Your task to perform on an android device: Go to display settings Image 0: 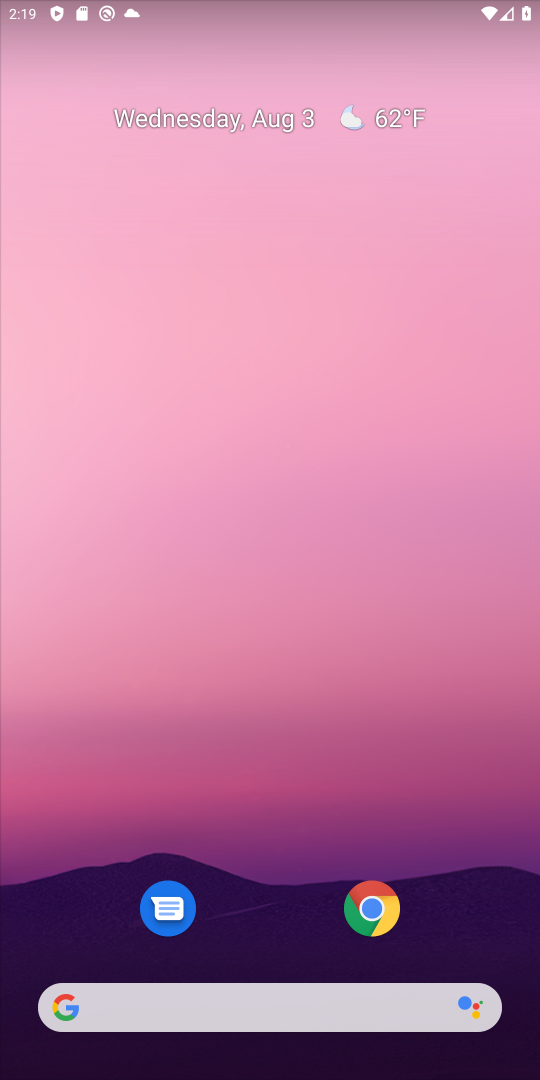
Step 0: drag from (283, 1037) to (325, 104)
Your task to perform on an android device: Go to display settings Image 1: 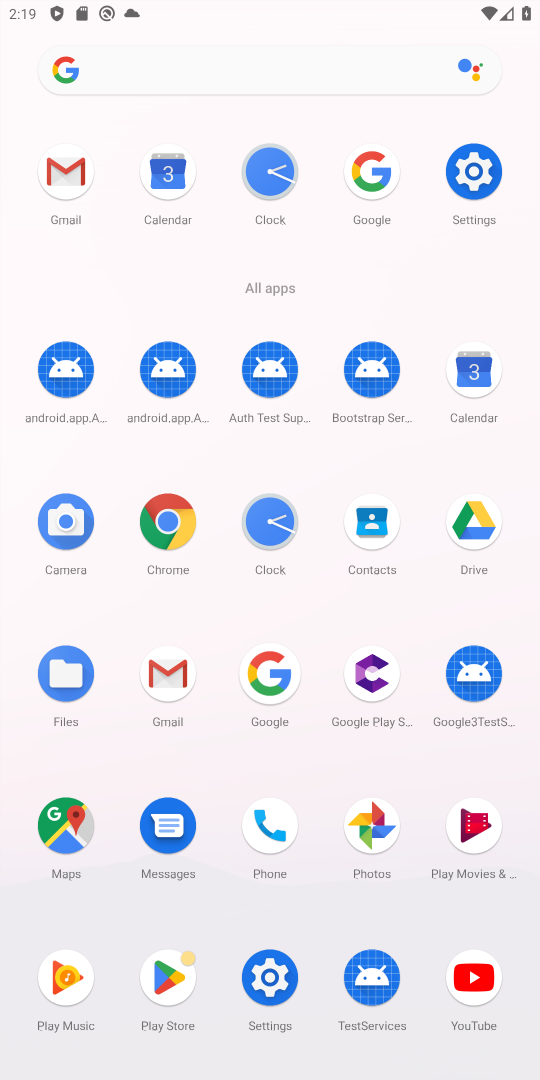
Step 1: click (467, 205)
Your task to perform on an android device: Go to display settings Image 2: 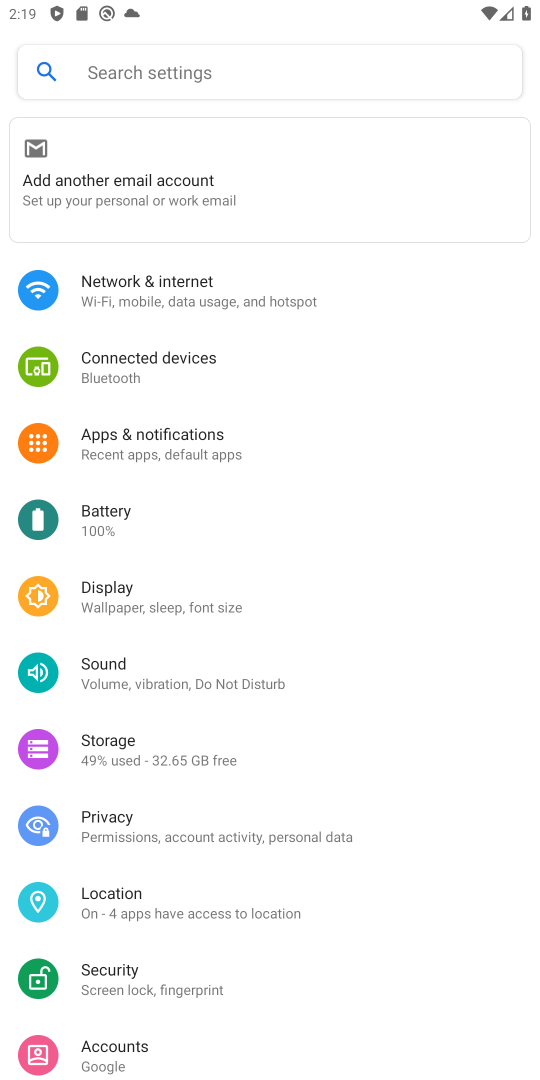
Step 2: click (194, 598)
Your task to perform on an android device: Go to display settings Image 3: 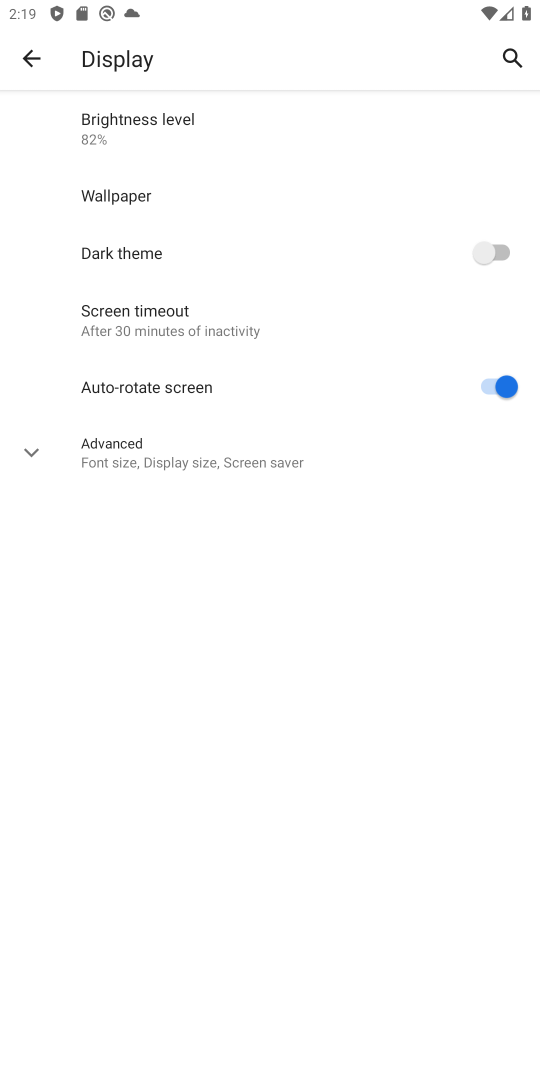
Step 3: task complete